Your task to perform on an android device: uninstall "Microsoft Outlook" Image 0: 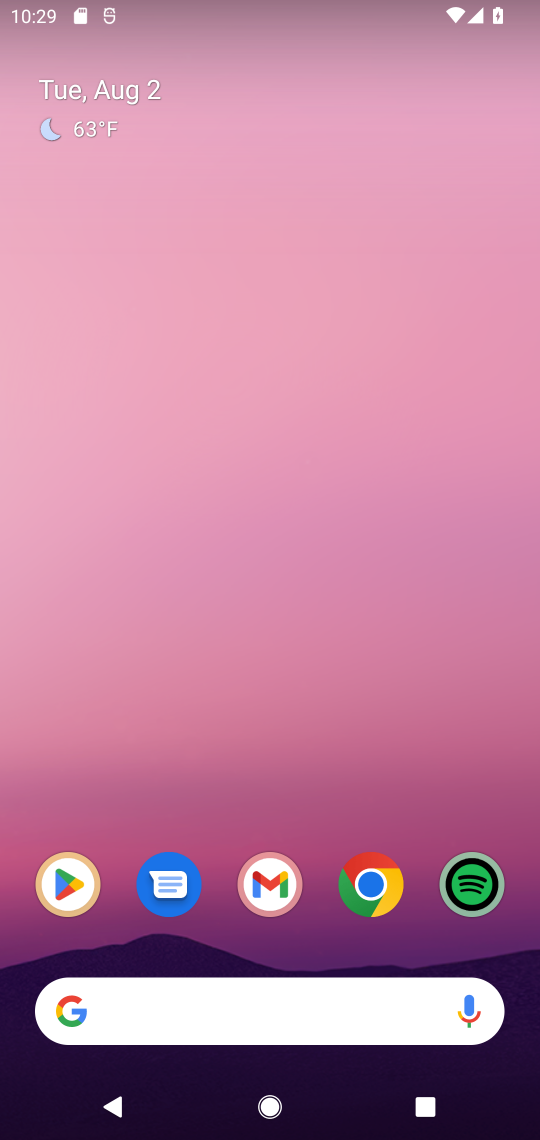
Step 0: click (75, 886)
Your task to perform on an android device: uninstall "Microsoft Outlook" Image 1: 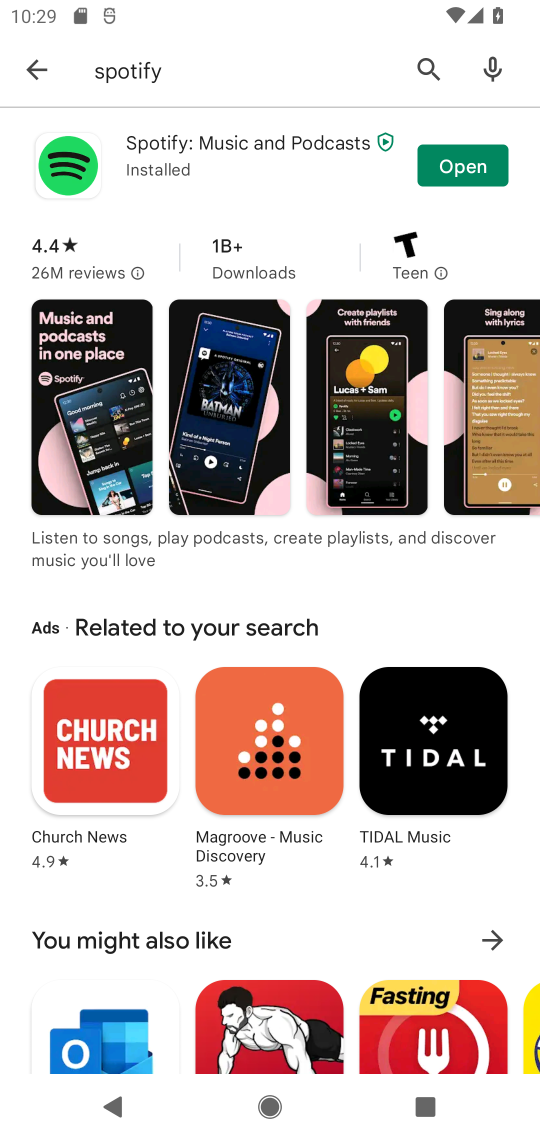
Step 1: click (188, 62)
Your task to perform on an android device: uninstall "Microsoft Outlook" Image 2: 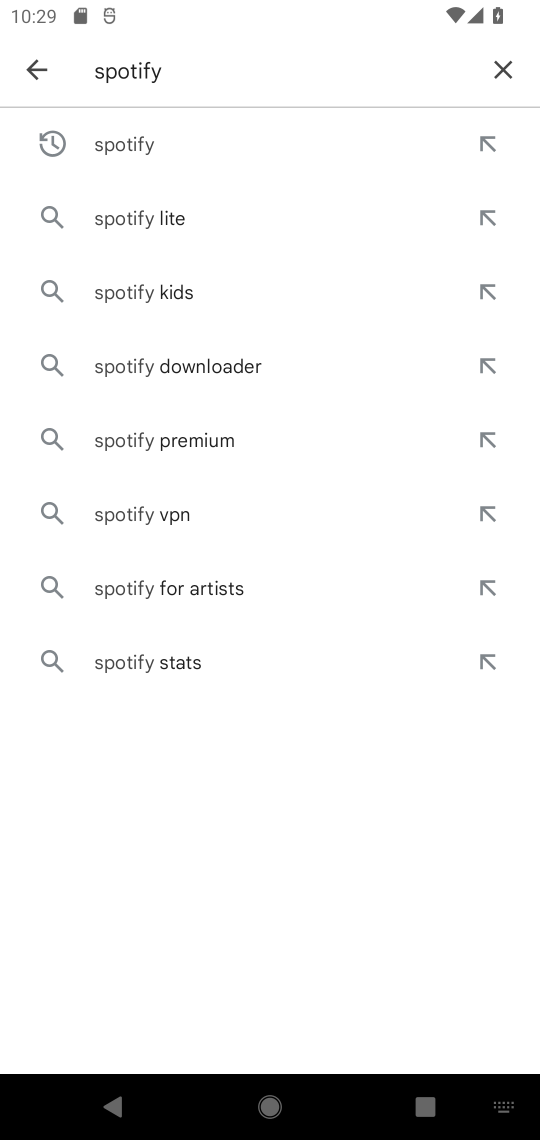
Step 2: click (501, 70)
Your task to perform on an android device: uninstall "Microsoft Outlook" Image 3: 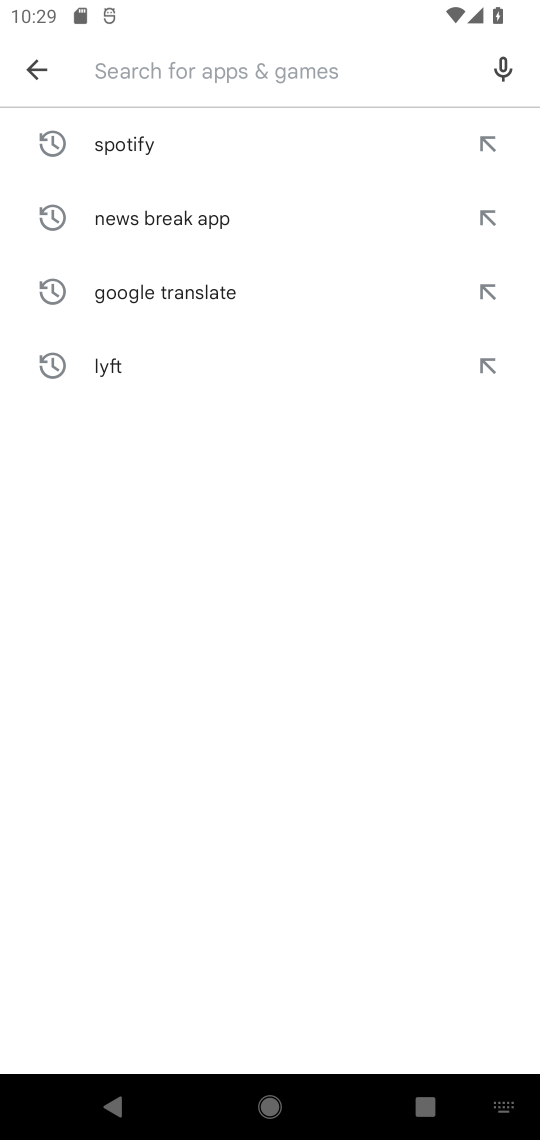
Step 3: type "microsoft outlook"
Your task to perform on an android device: uninstall "Microsoft Outlook" Image 4: 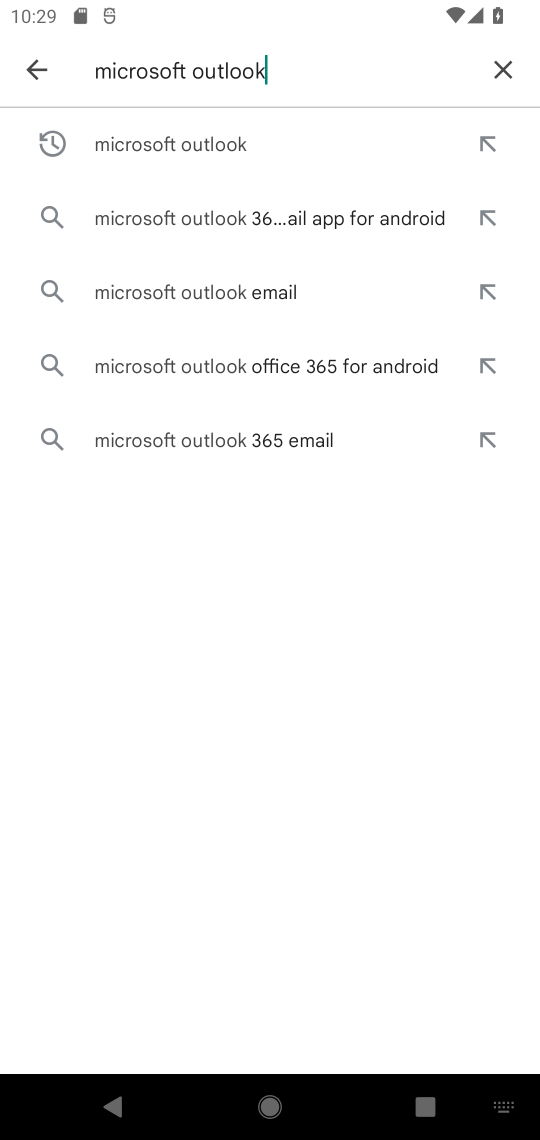
Step 4: click (171, 153)
Your task to perform on an android device: uninstall "Microsoft Outlook" Image 5: 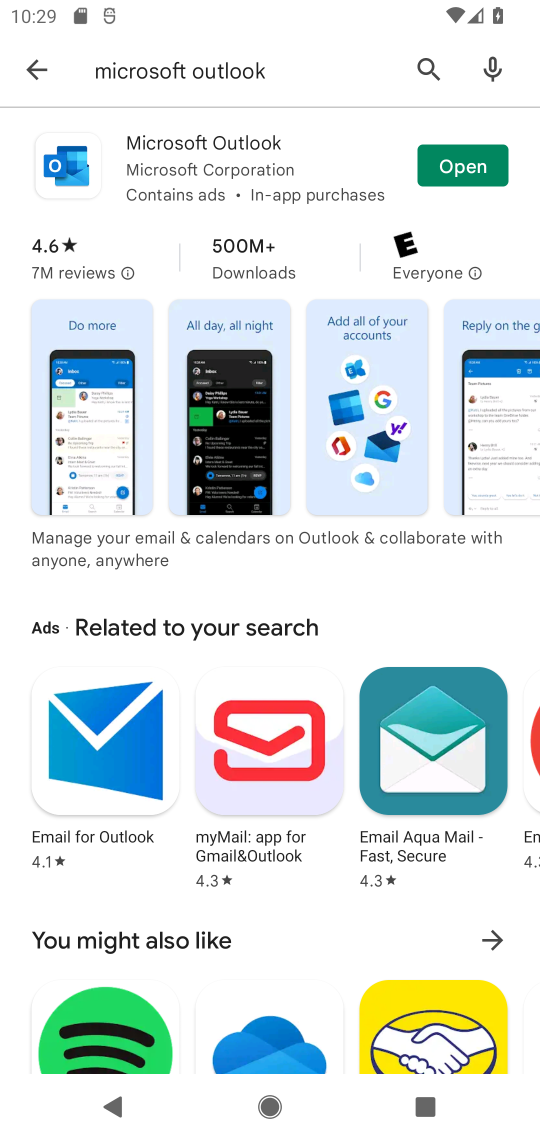
Step 5: click (112, 159)
Your task to perform on an android device: uninstall "Microsoft Outlook" Image 6: 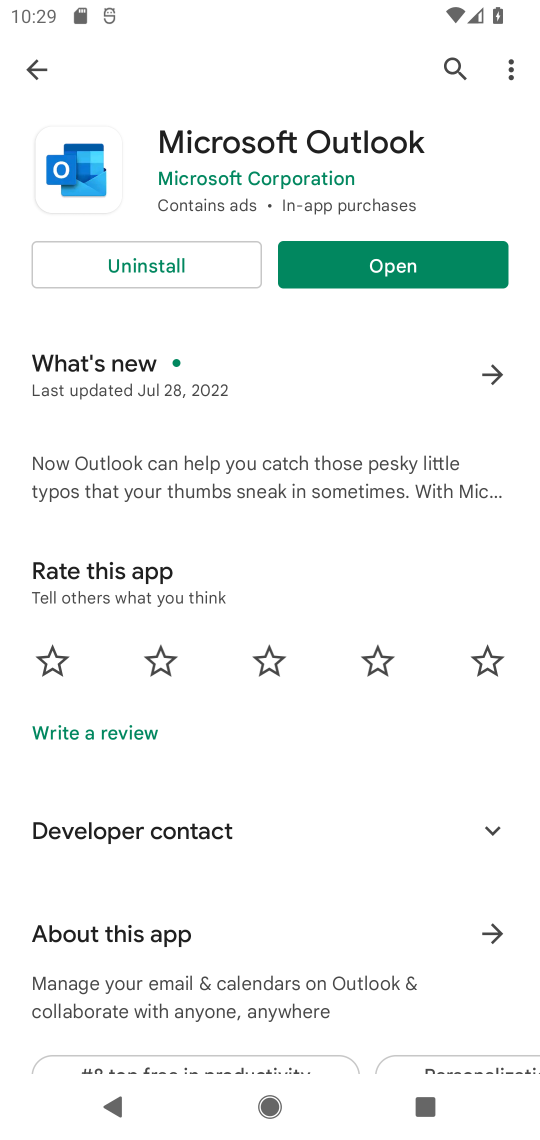
Step 6: click (162, 273)
Your task to perform on an android device: uninstall "Microsoft Outlook" Image 7: 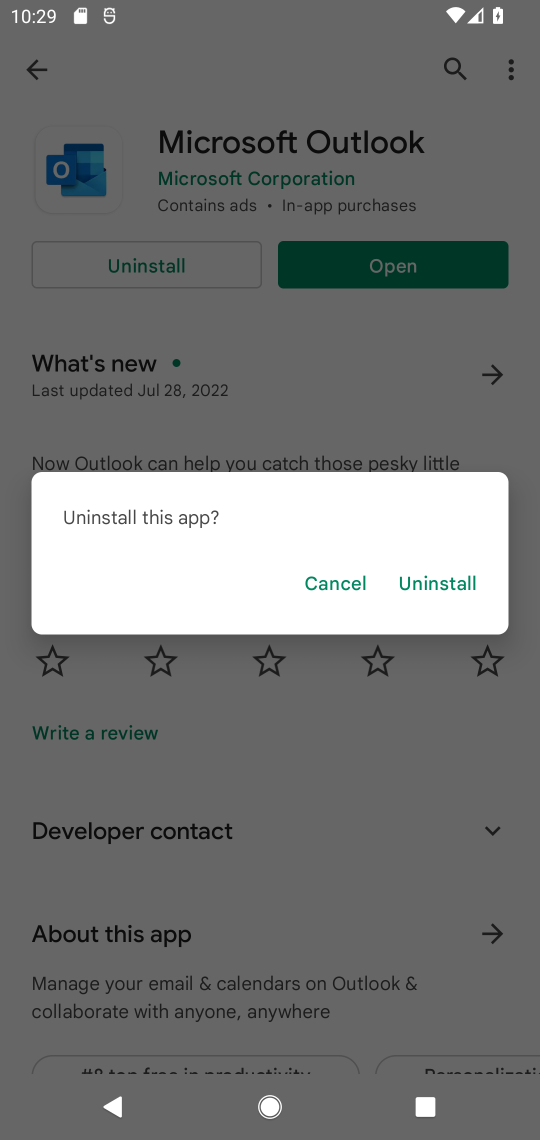
Step 7: click (460, 610)
Your task to perform on an android device: uninstall "Microsoft Outlook" Image 8: 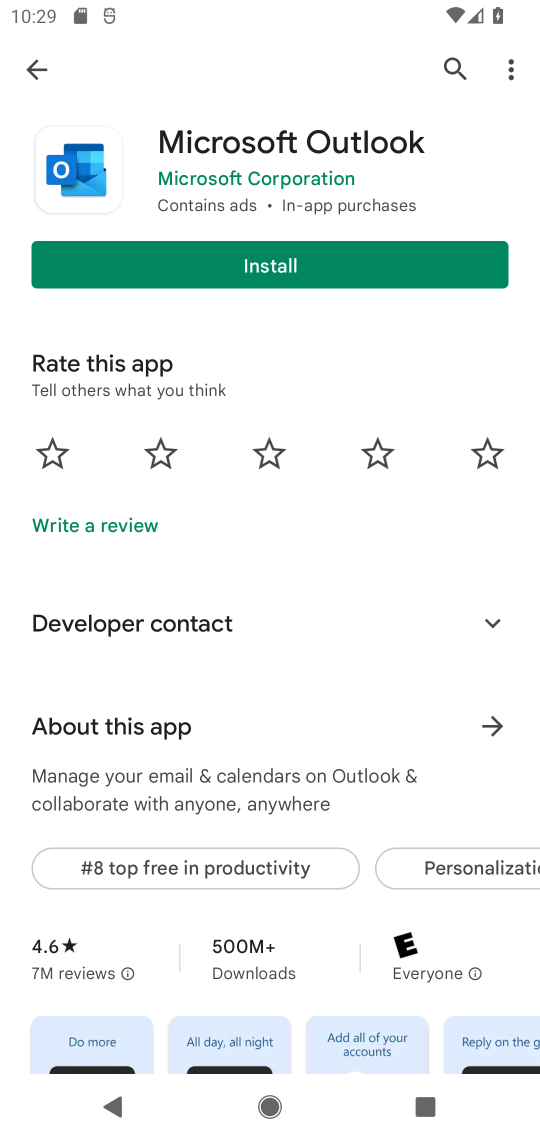
Step 8: task complete